Your task to perform on an android device: snooze an email in the gmail app Image 0: 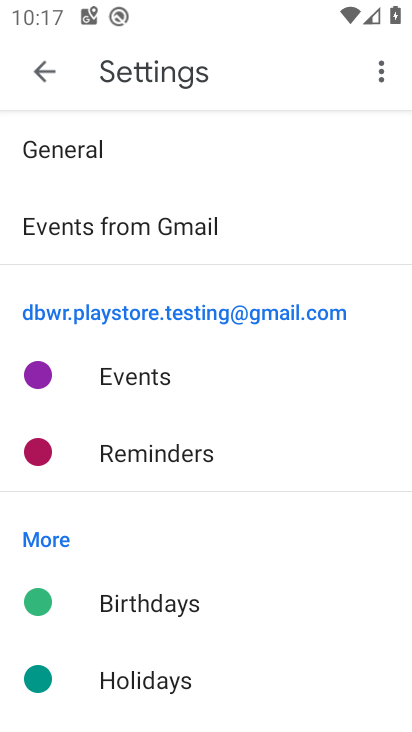
Step 0: press back button
Your task to perform on an android device: snooze an email in the gmail app Image 1: 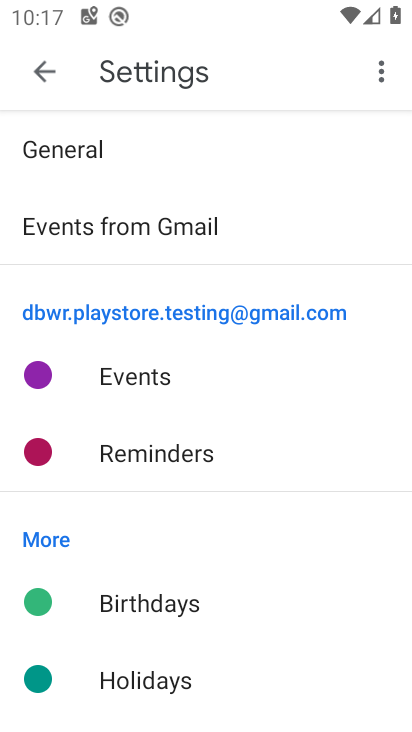
Step 1: press home button
Your task to perform on an android device: snooze an email in the gmail app Image 2: 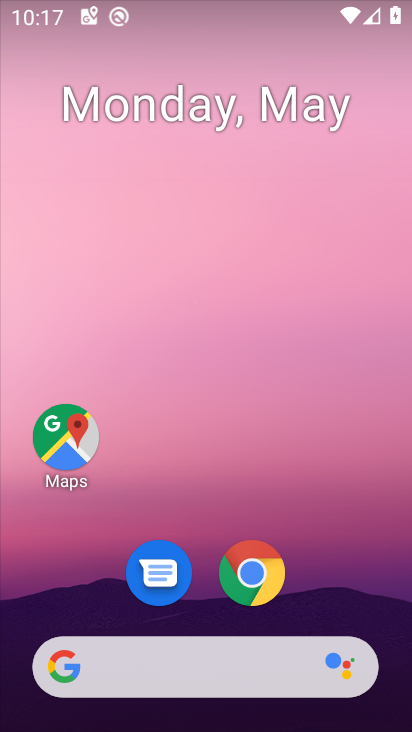
Step 2: drag from (235, 485) to (353, 3)
Your task to perform on an android device: snooze an email in the gmail app Image 3: 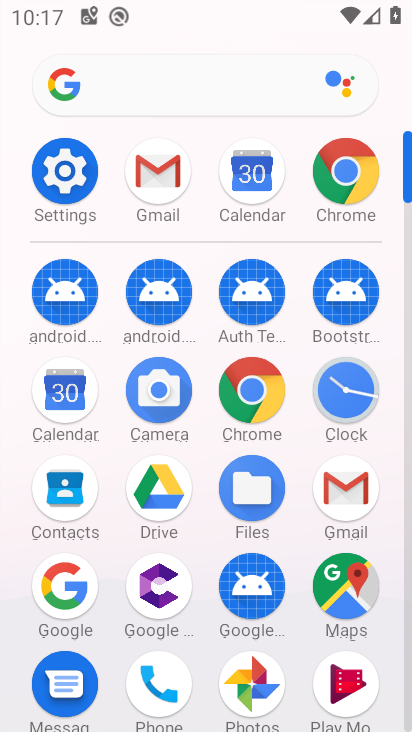
Step 3: click (175, 177)
Your task to perform on an android device: snooze an email in the gmail app Image 4: 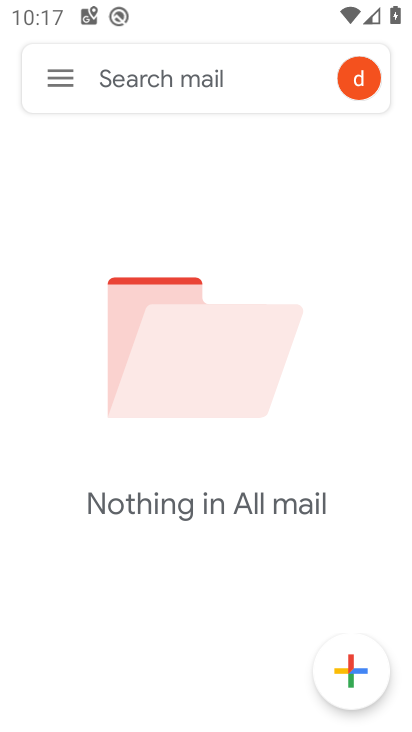
Step 4: click (54, 69)
Your task to perform on an android device: snooze an email in the gmail app Image 5: 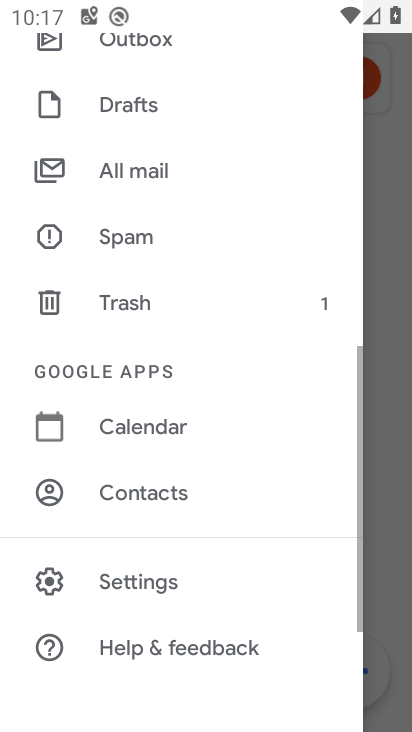
Step 5: drag from (235, 276) to (184, 638)
Your task to perform on an android device: snooze an email in the gmail app Image 6: 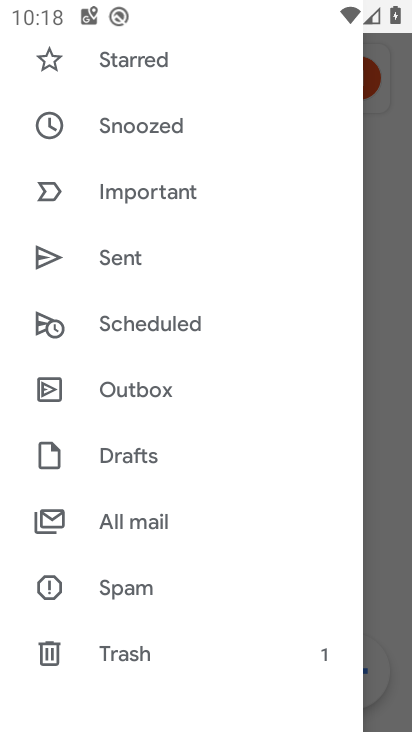
Step 6: click (152, 527)
Your task to perform on an android device: snooze an email in the gmail app Image 7: 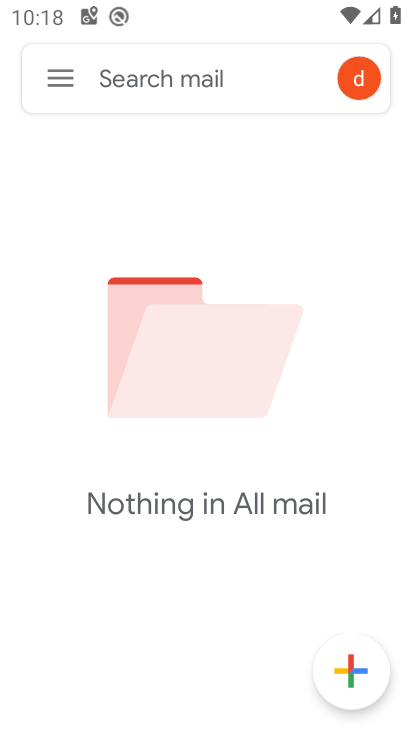
Step 7: task complete